Your task to perform on an android device: change text size in settings app Image 0: 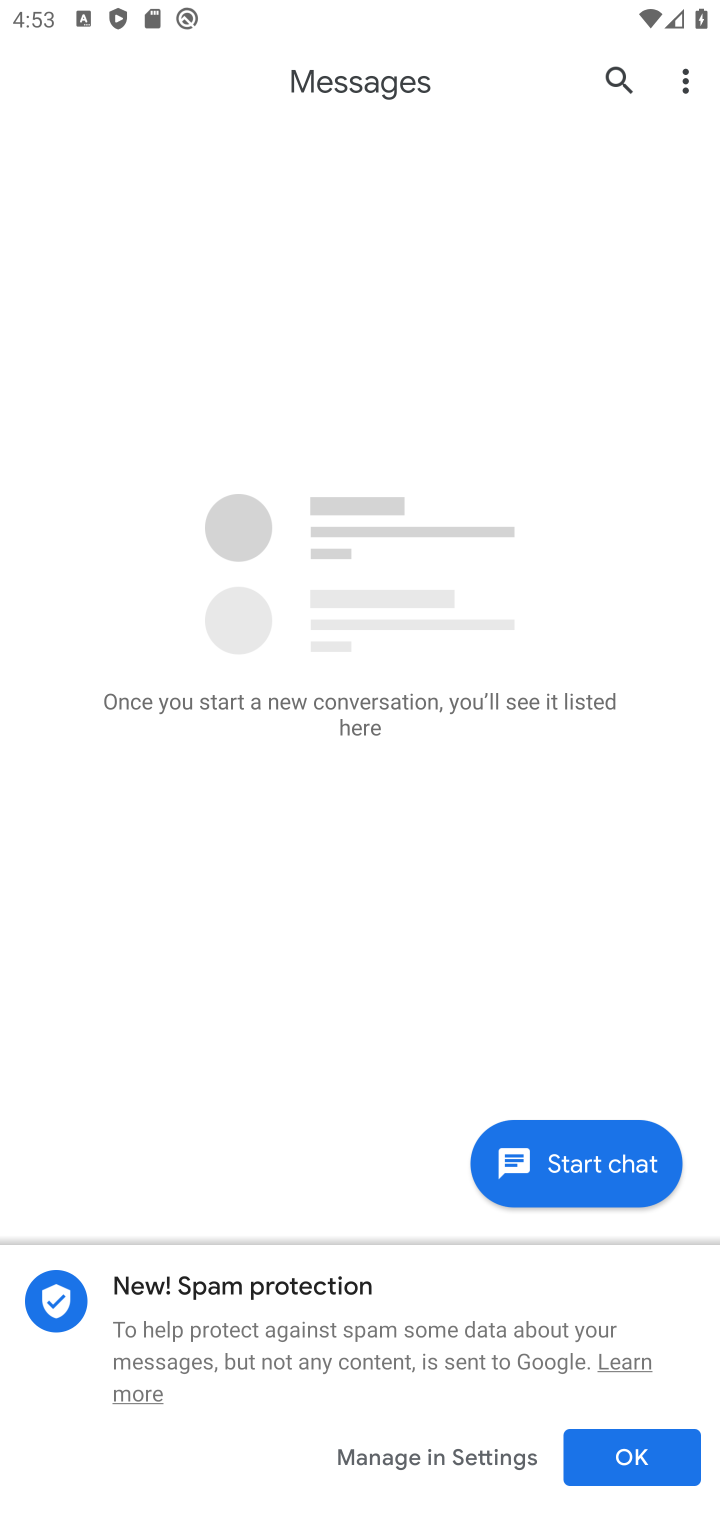
Step 0: press home button
Your task to perform on an android device: change text size in settings app Image 1: 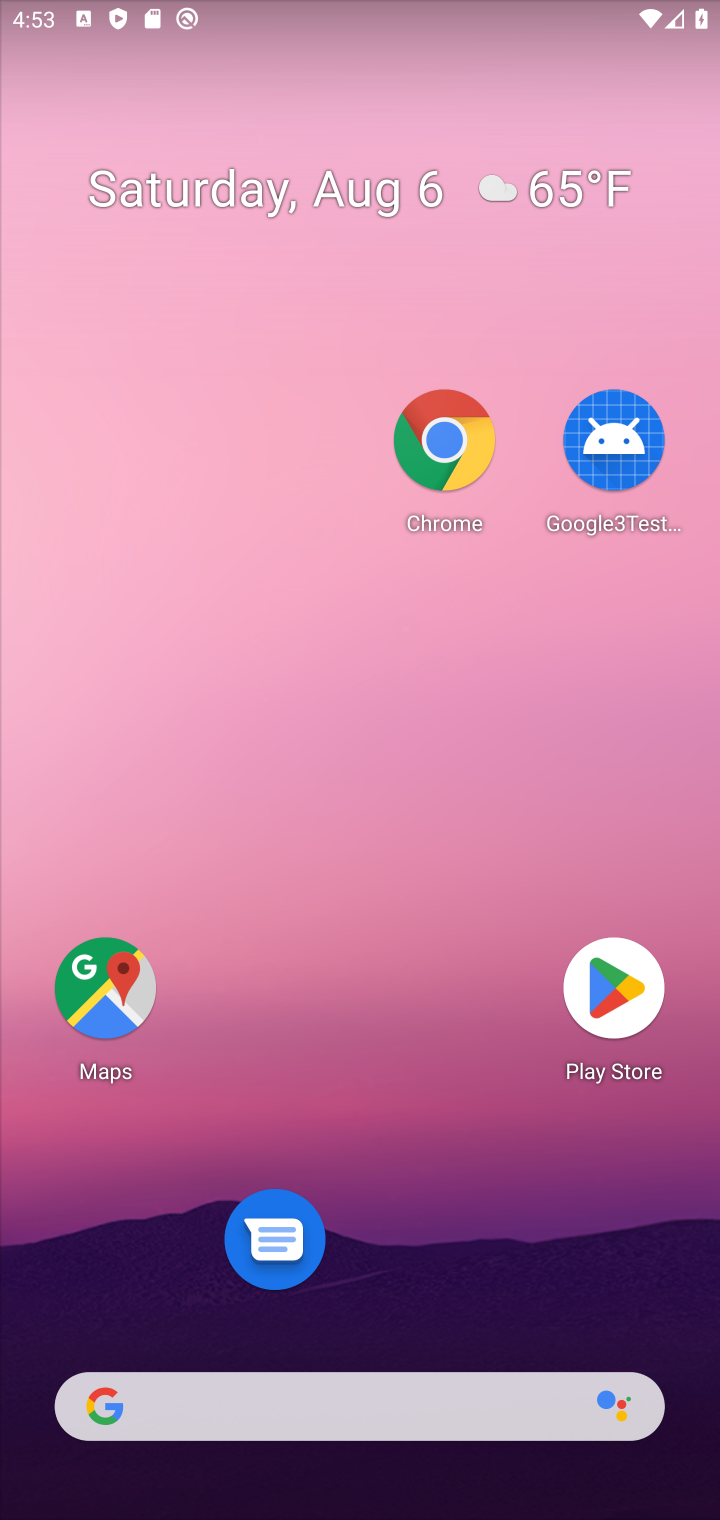
Step 1: drag from (368, 1380) to (291, 224)
Your task to perform on an android device: change text size in settings app Image 2: 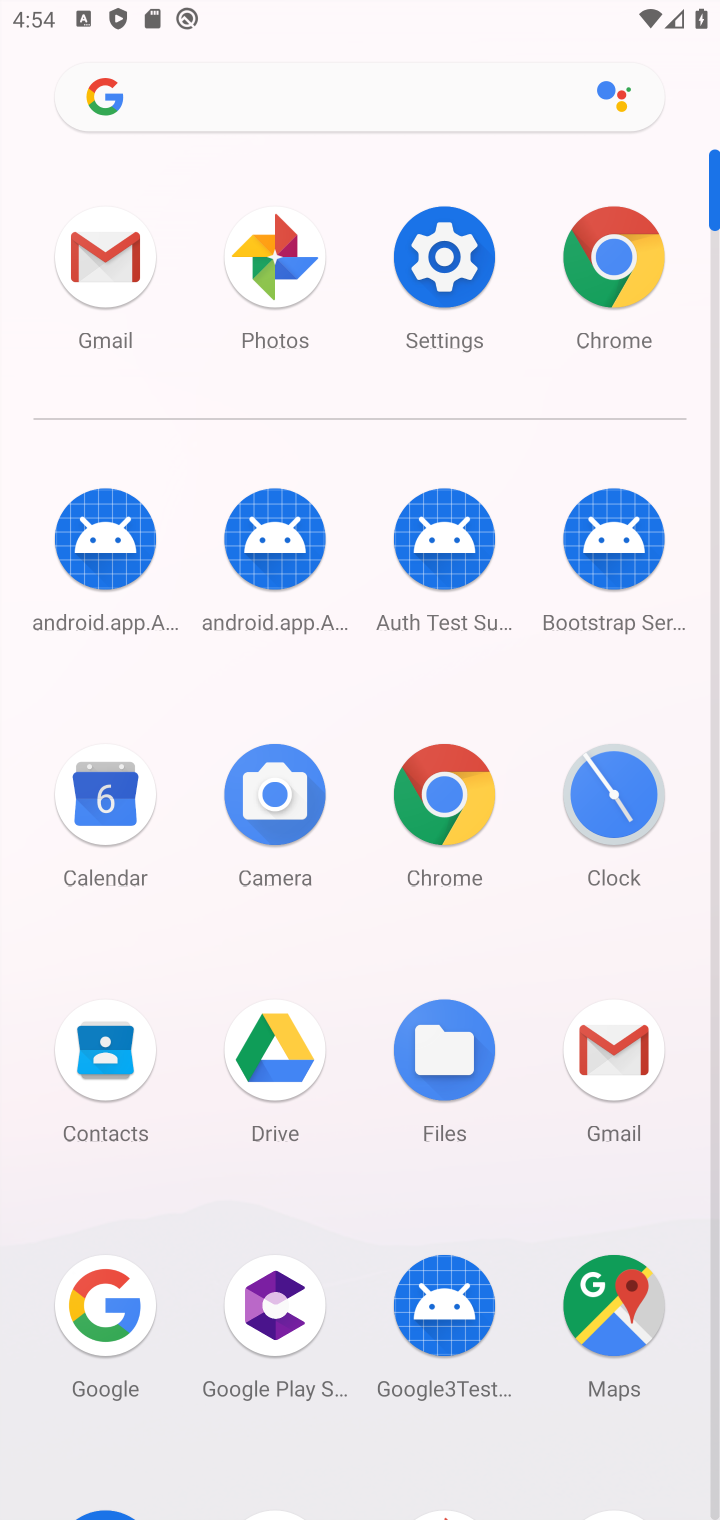
Step 2: click (451, 268)
Your task to perform on an android device: change text size in settings app Image 3: 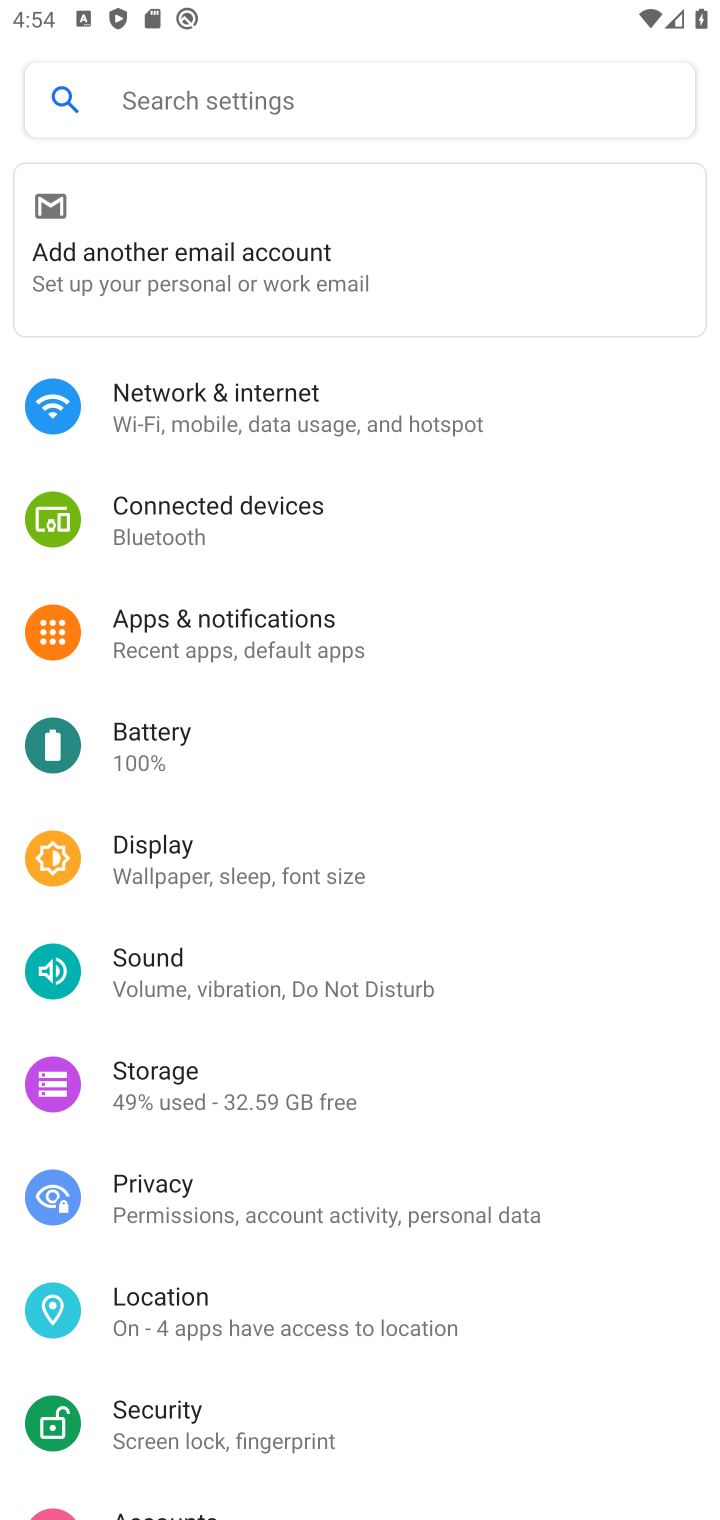
Step 3: drag from (659, 1325) to (511, 99)
Your task to perform on an android device: change text size in settings app Image 4: 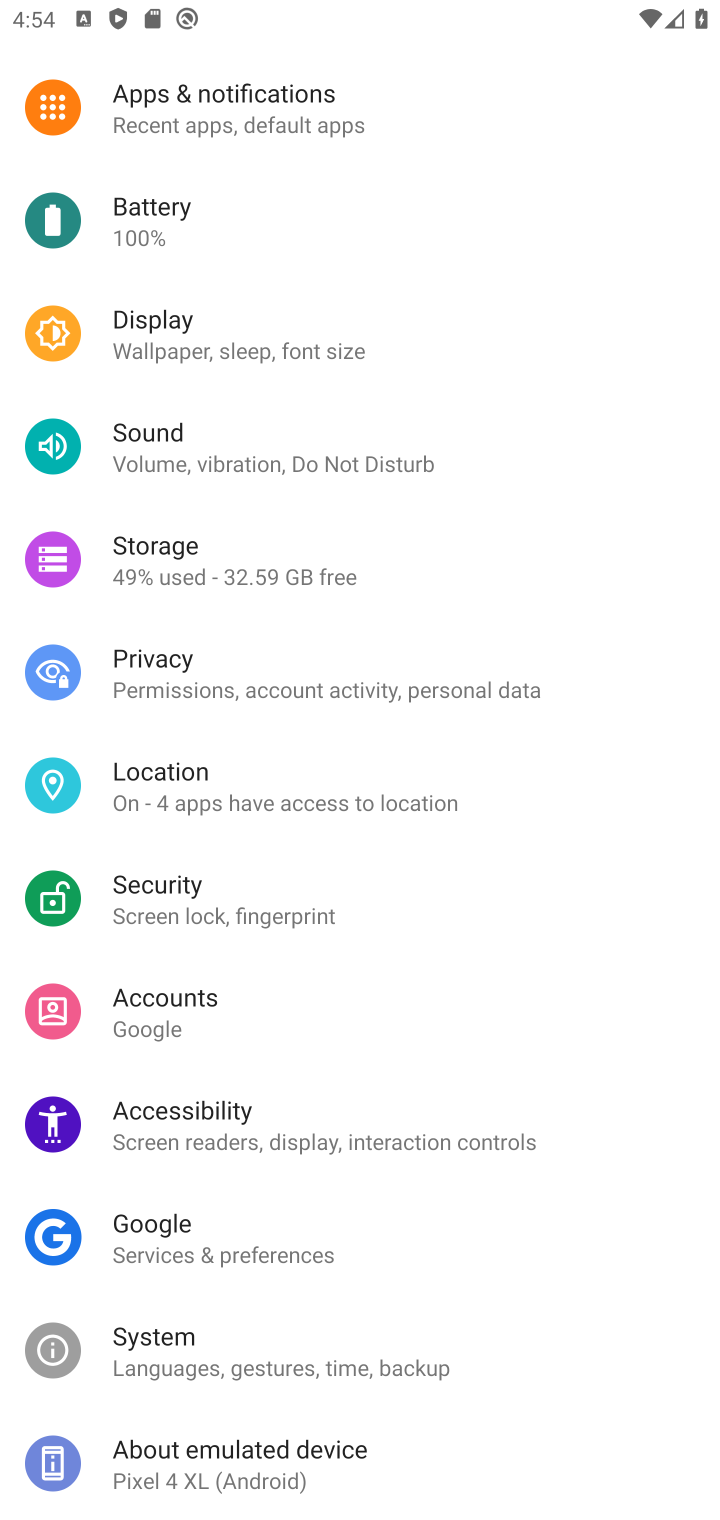
Step 4: click (272, 1111)
Your task to perform on an android device: change text size in settings app Image 5: 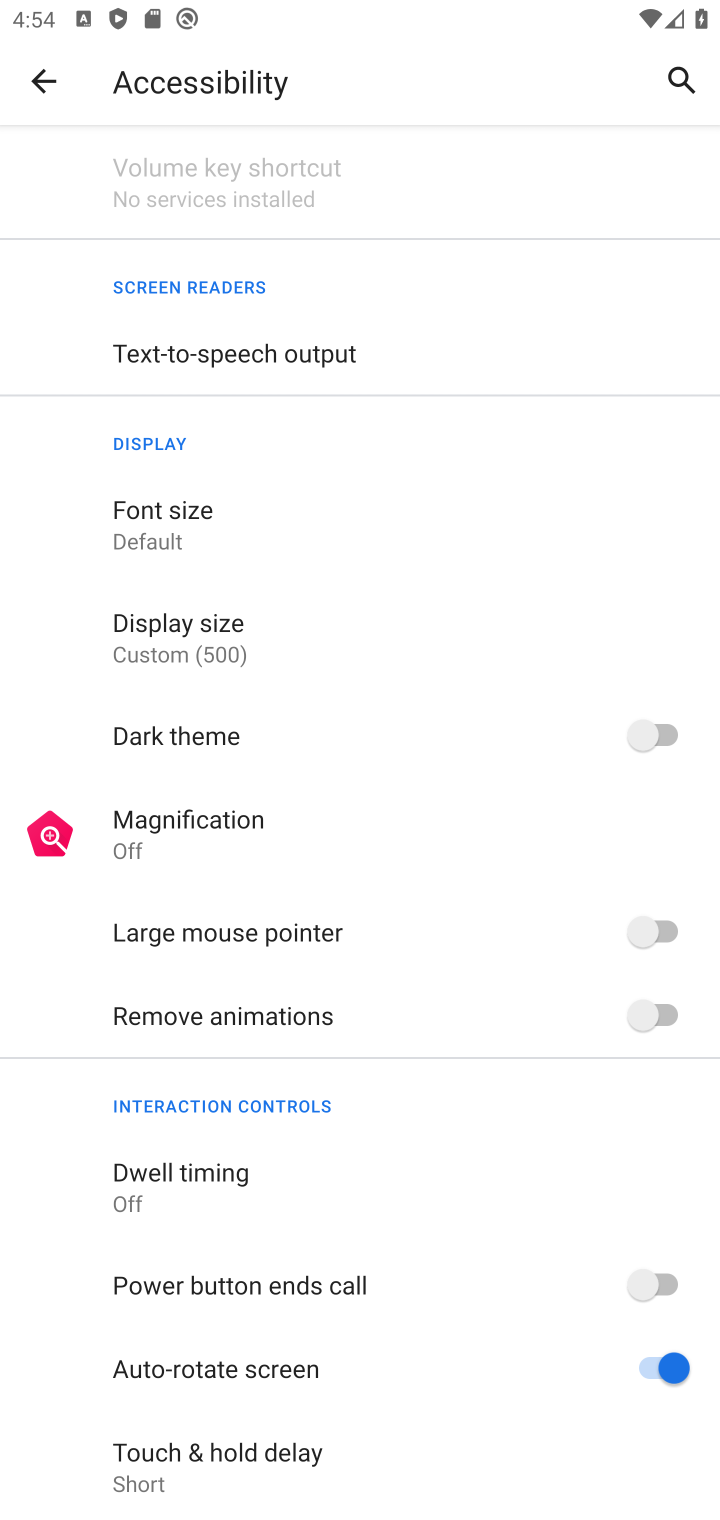
Step 5: click (207, 514)
Your task to perform on an android device: change text size in settings app Image 6: 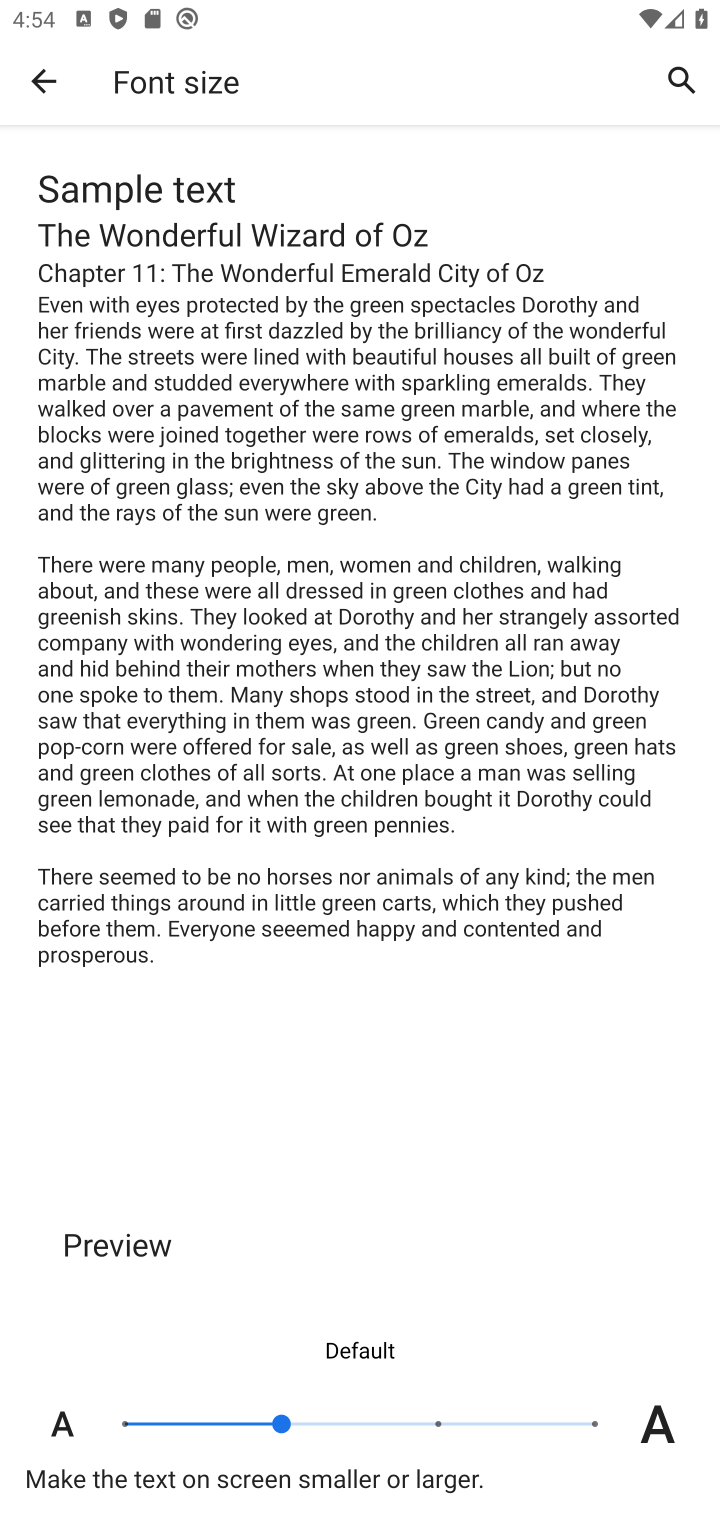
Step 6: click (433, 1416)
Your task to perform on an android device: change text size in settings app Image 7: 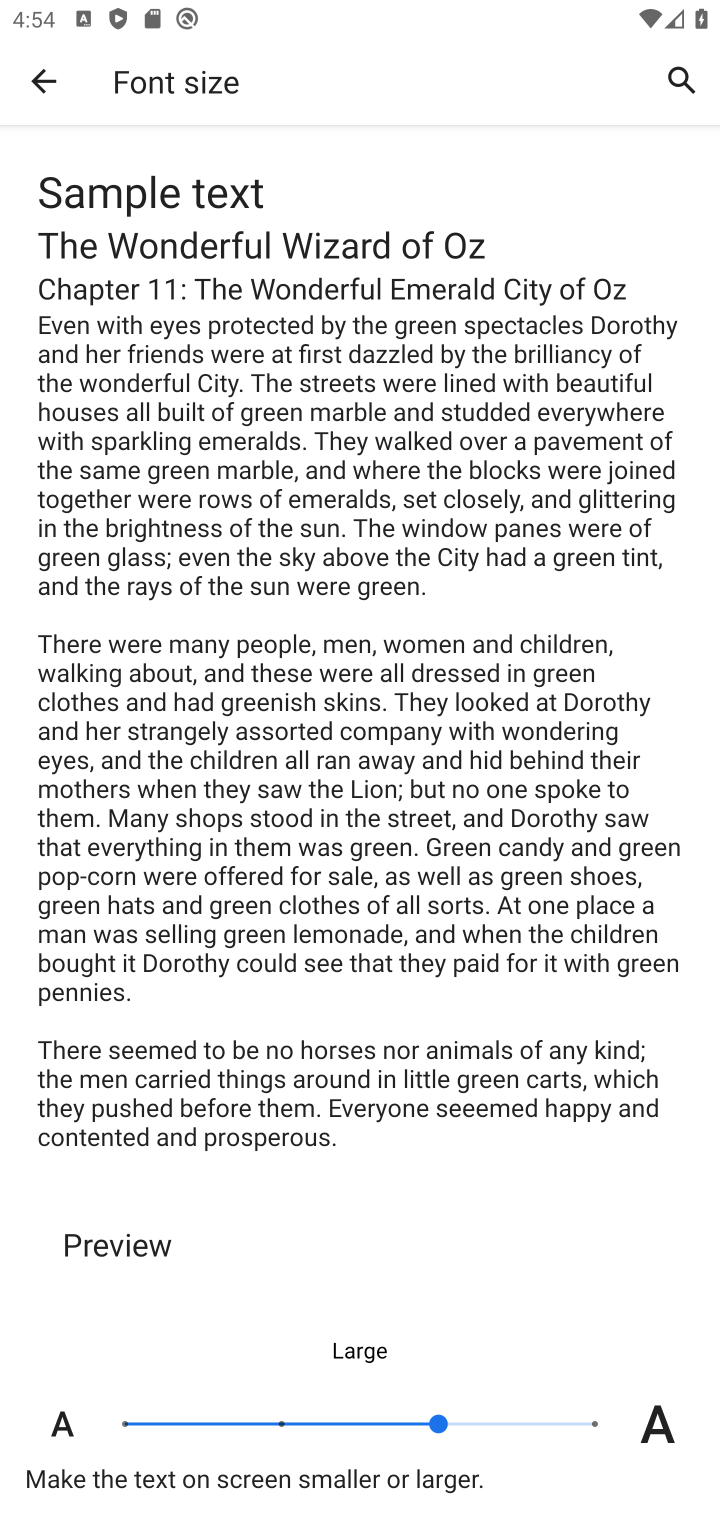
Step 7: task complete